Your task to perform on an android device: stop showing notifications on the lock screen Image 0: 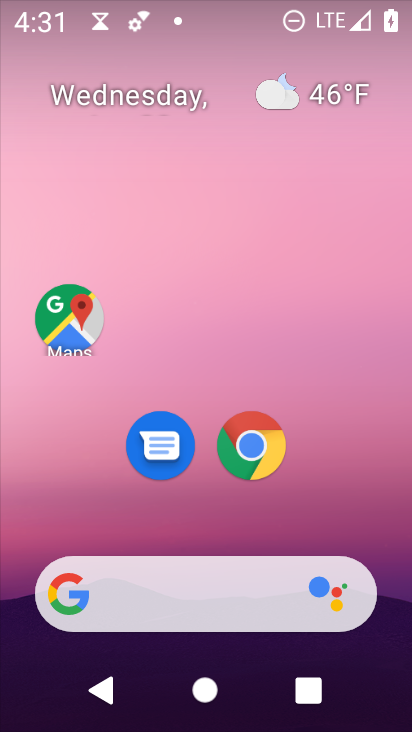
Step 0: drag from (298, 466) to (278, 30)
Your task to perform on an android device: stop showing notifications on the lock screen Image 1: 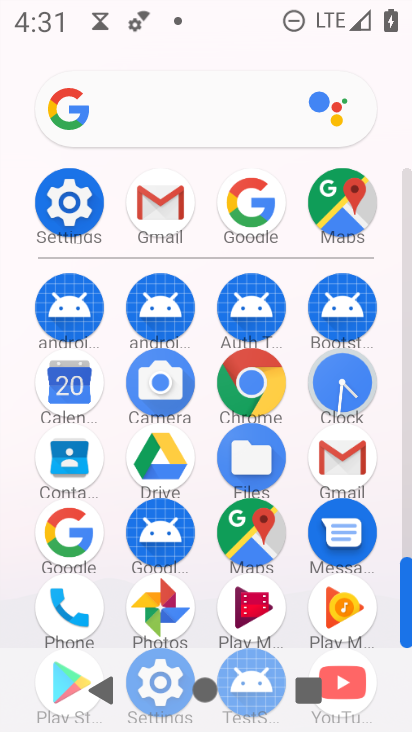
Step 1: click (74, 199)
Your task to perform on an android device: stop showing notifications on the lock screen Image 2: 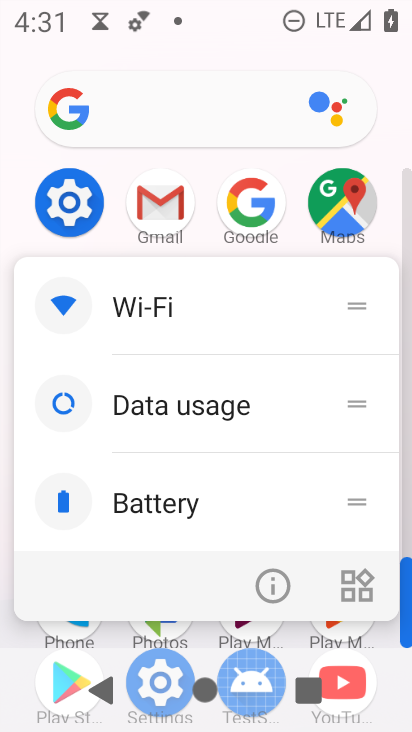
Step 2: click (74, 199)
Your task to perform on an android device: stop showing notifications on the lock screen Image 3: 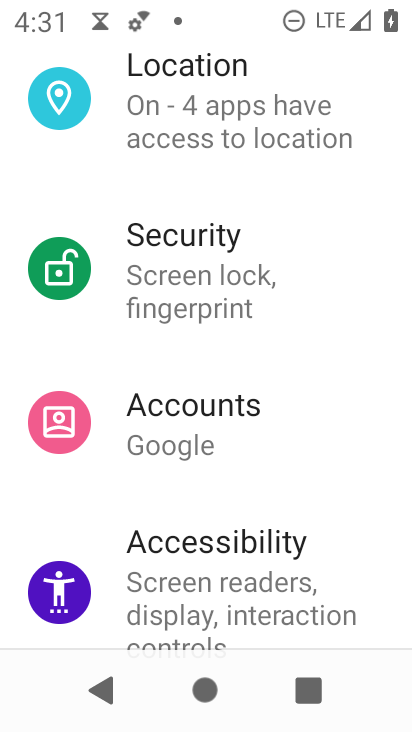
Step 3: drag from (295, 331) to (327, 427)
Your task to perform on an android device: stop showing notifications on the lock screen Image 4: 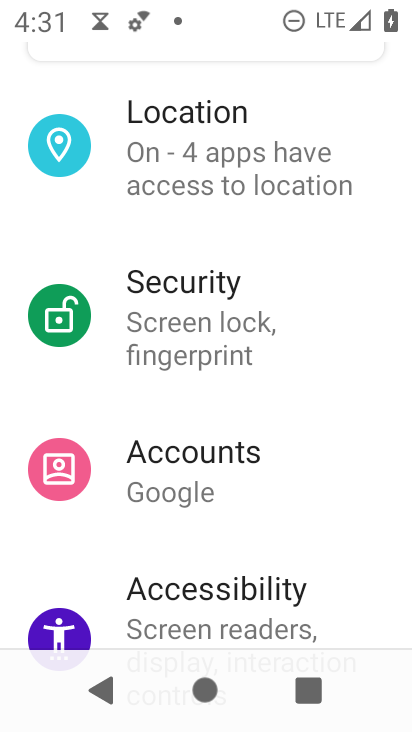
Step 4: drag from (289, 256) to (342, 404)
Your task to perform on an android device: stop showing notifications on the lock screen Image 5: 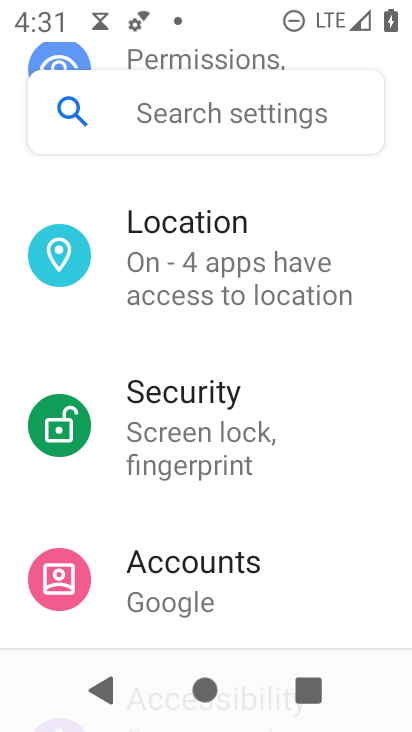
Step 5: drag from (321, 213) to (354, 397)
Your task to perform on an android device: stop showing notifications on the lock screen Image 6: 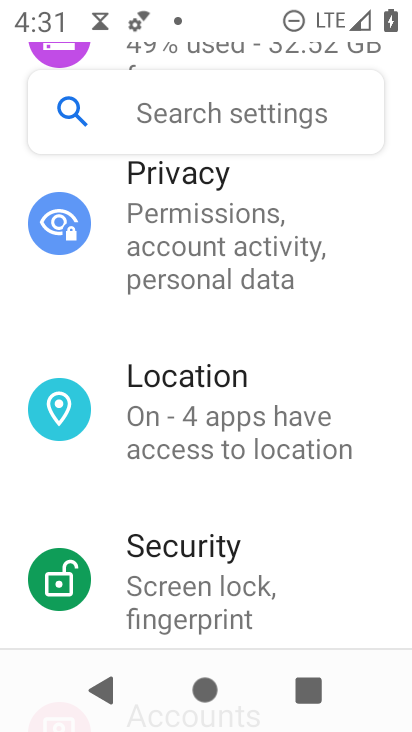
Step 6: drag from (300, 201) to (344, 404)
Your task to perform on an android device: stop showing notifications on the lock screen Image 7: 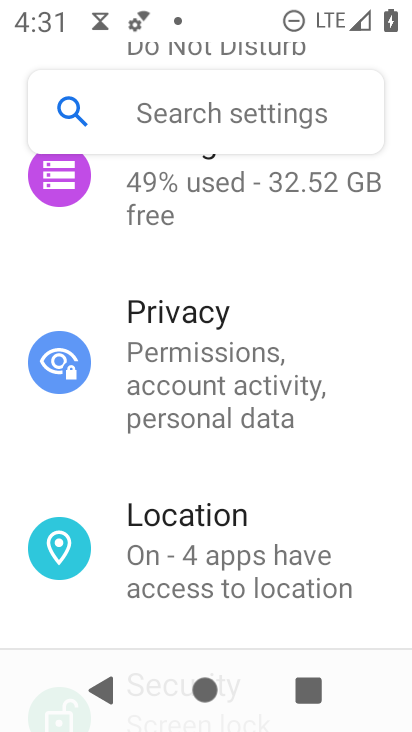
Step 7: drag from (289, 249) to (317, 438)
Your task to perform on an android device: stop showing notifications on the lock screen Image 8: 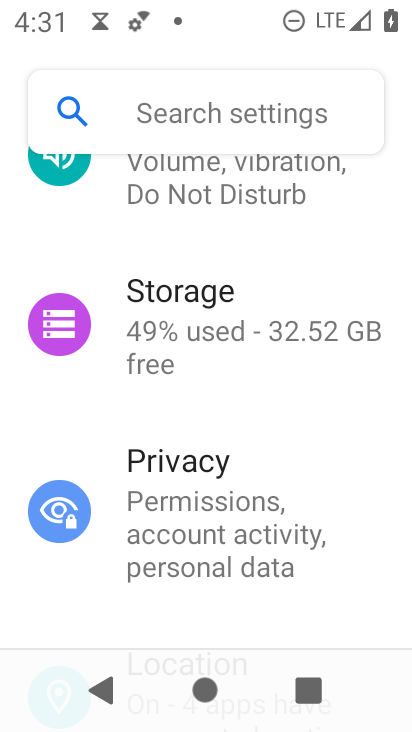
Step 8: drag from (288, 251) to (314, 459)
Your task to perform on an android device: stop showing notifications on the lock screen Image 9: 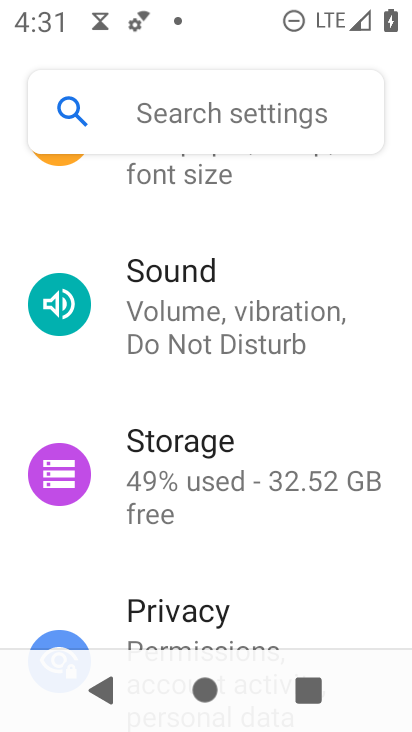
Step 9: drag from (300, 260) to (315, 491)
Your task to perform on an android device: stop showing notifications on the lock screen Image 10: 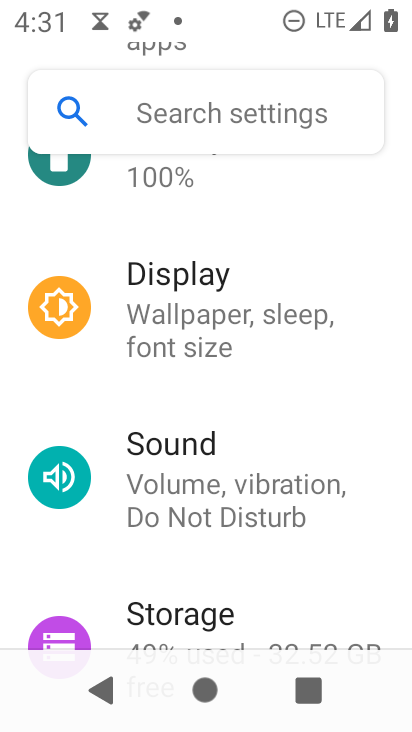
Step 10: drag from (284, 260) to (304, 460)
Your task to perform on an android device: stop showing notifications on the lock screen Image 11: 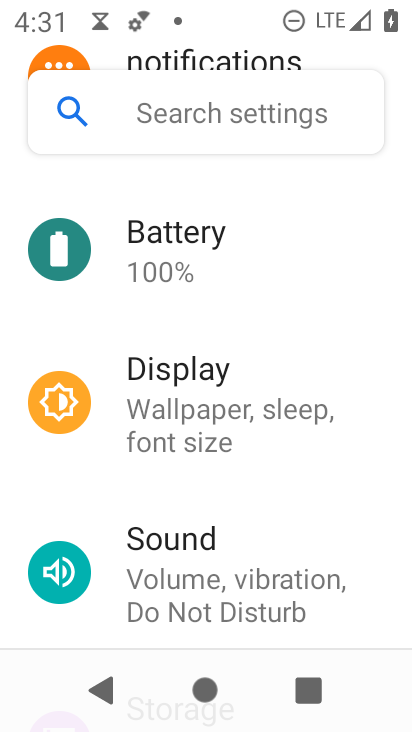
Step 11: drag from (295, 243) to (296, 444)
Your task to perform on an android device: stop showing notifications on the lock screen Image 12: 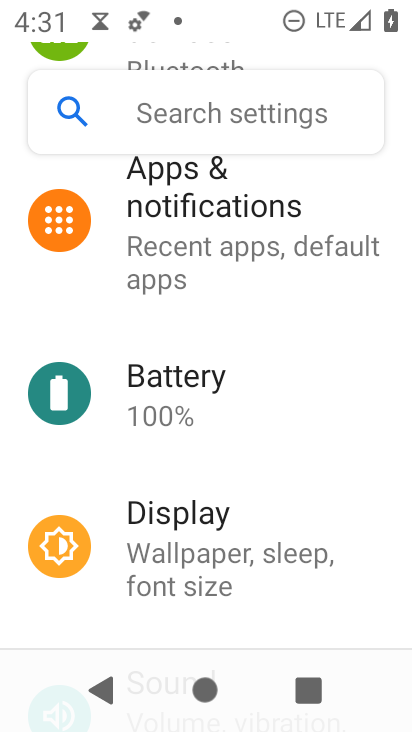
Step 12: click (243, 206)
Your task to perform on an android device: stop showing notifications on the lock screen Image 13: 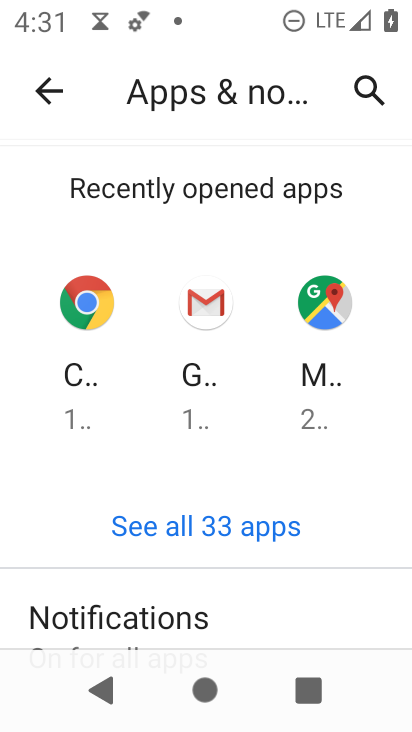
Step 13: drag from (241, 579) to (288, 379)
Your task to perform on an android device: stop showing notifications on the lock screen Image 14: 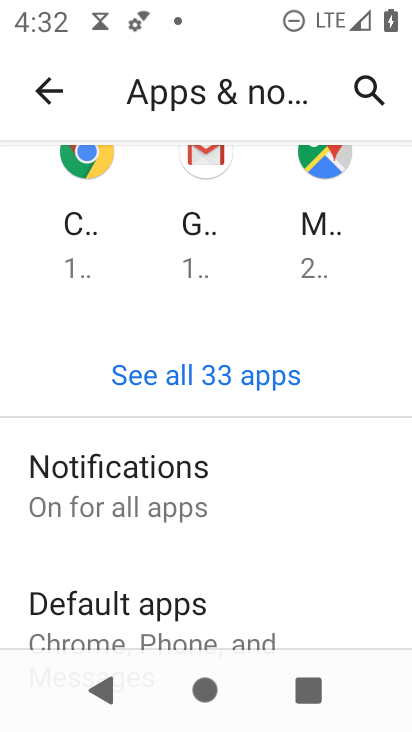
Step 14: click (180, 456)
Your task to perform on an android device: stop showing notifications on the lock screen Image 15: 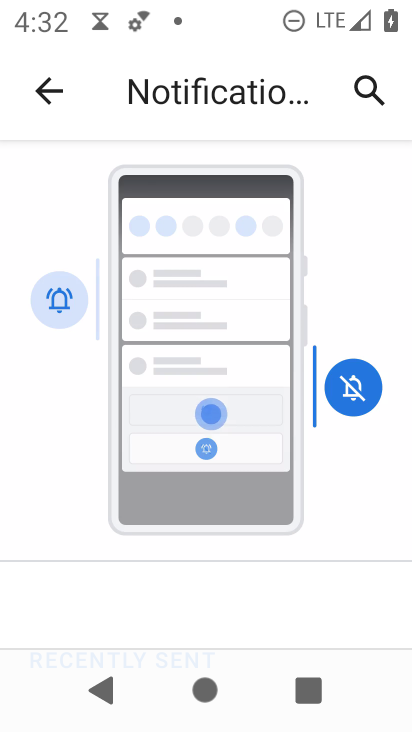
Step 15: drag from (236, 589) to (298, 302)
Your task to perform on an android device: stop showing notifications on the lock screen Image 16: 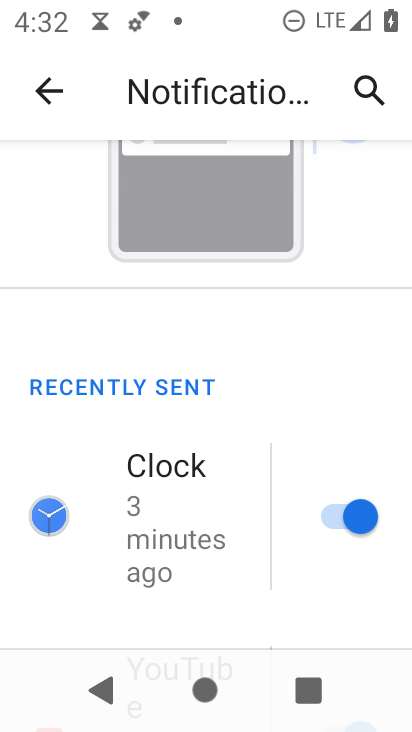
Step 16: drag from (234, 574) to (306, 320)
Your task to perform on an android device: stop showing notifications on the lock screen Image 17: 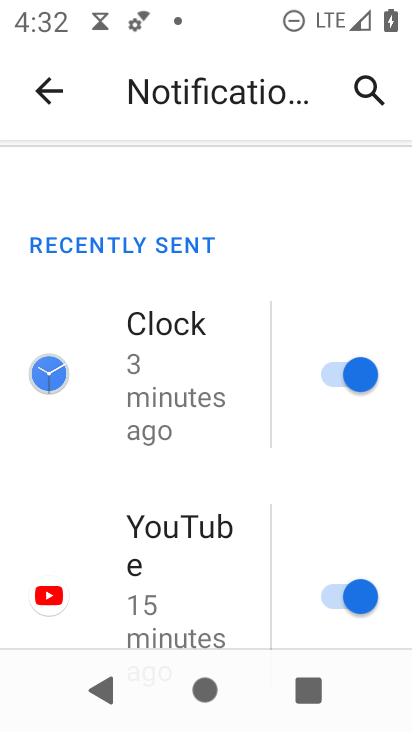
Step 17: drag from (236, 597) to (306, 285)
Your task to perform on an android device: stop showing notifications on the lock screen Image 18: 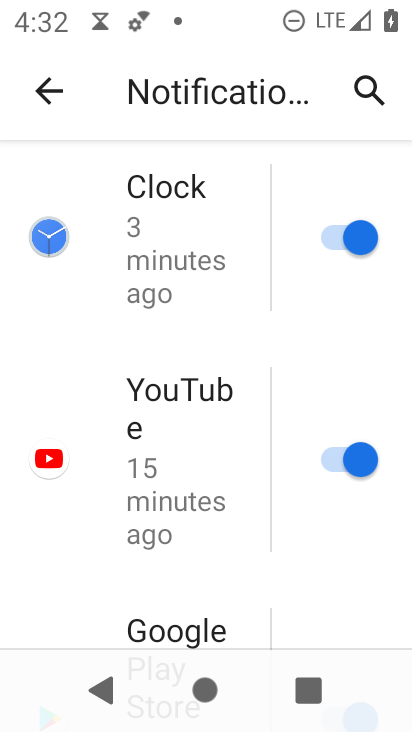
Step 18: drag from (235, 565) to (281, 295)
Your task to perform on an android device: stop showing notifications on the lock screen Image 19: 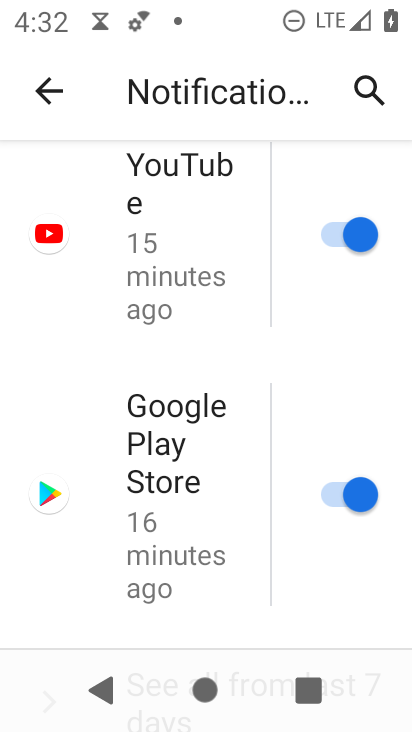
Step 19: drag from (237, 592) to (304, 300)
Your task to perform on an android device: stop showing notifications on the lock screen Image 20: 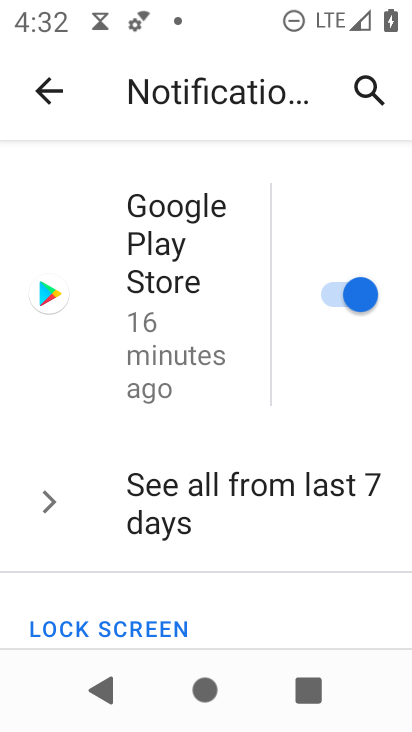
Step 20: drag from (244, 612) to (296, 350)
Your task to perform on an android device: stop showing notifications on the lock screen Image 21: 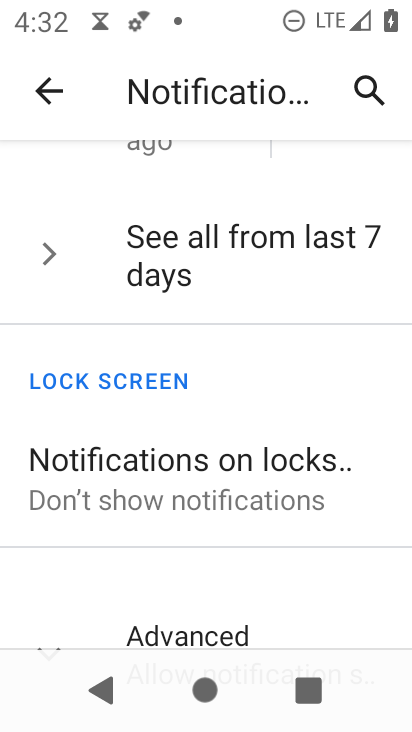
Step 21: click (255, 510)
Your task to perform on an android device: stop showing notifications on the lock screen Image 22: 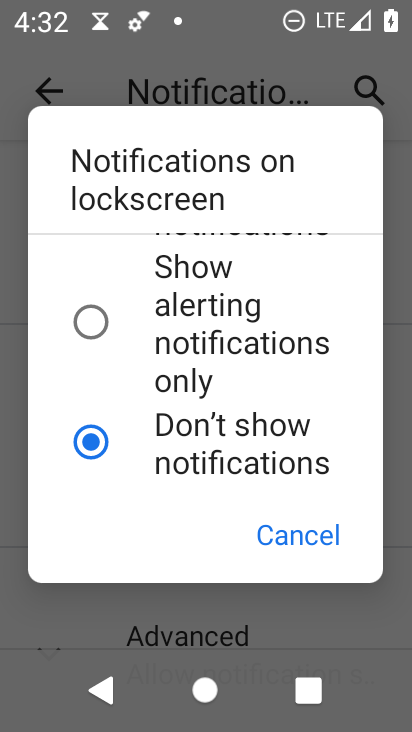
Step 22: click (101, 441)
Your task to perform on an android device: stop showing notifications on the lock screen Image 23: 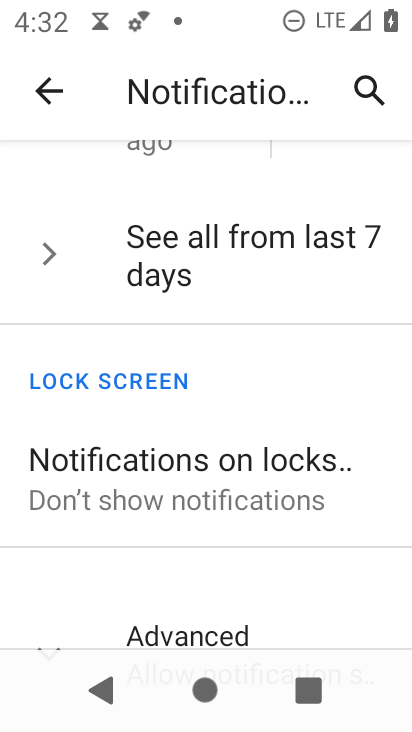
Step 23: task complete